Your task to perform on an android device: check google app version Image 0: 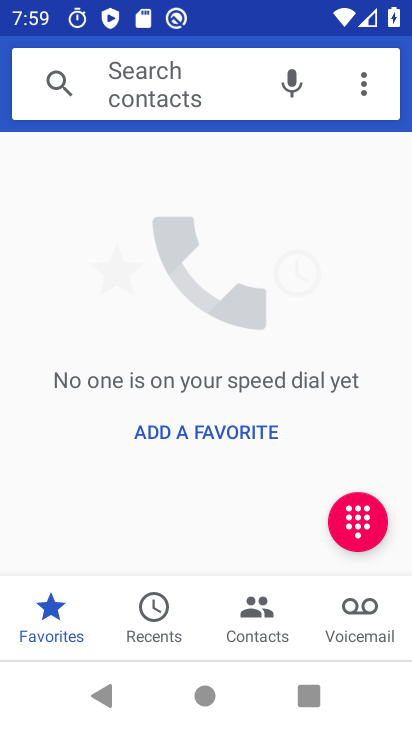
Step 0: press home button
Your task to perform on an android device: check google app version Image 1: 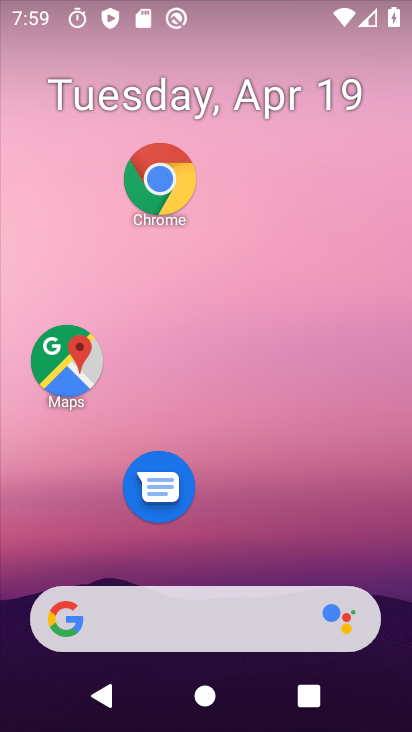
Step 1: click (191, 274)
Your task to perform on an android device: check google app version Image 2: 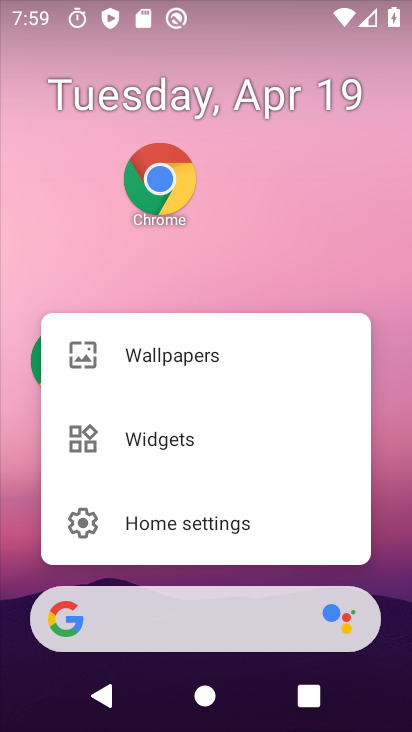
Step 2: click (220, 219)
Your task to perform on an android device: check google app version Image 3: 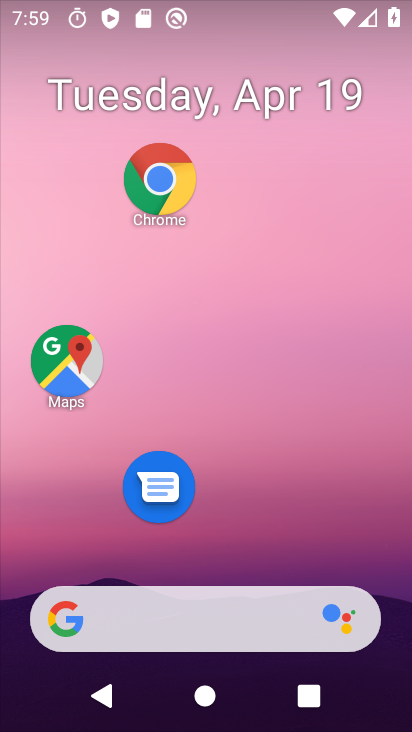
Step 3: drag from (239, 528) to (191, 273)
Your task to perform on an android device: check google app version Image 4: 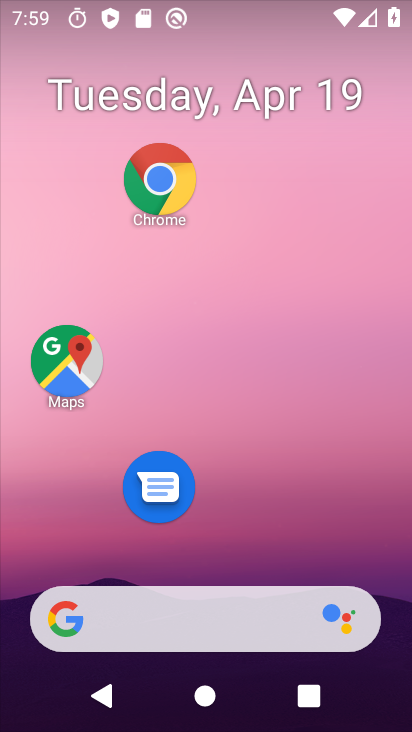
Step 4: drag from (260, 322) to (245, 273)
Your task to perform on an android device: check google app version Image 5: 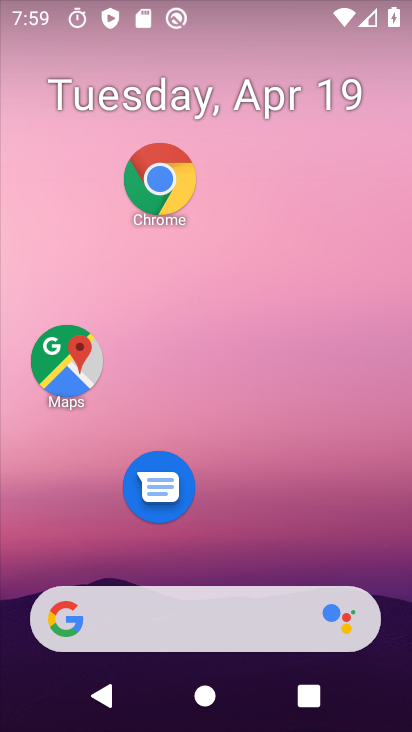
Step 5: drag from (228, 480) to (160, 256)
Your task to perform on an android device: check google app version Image 6: 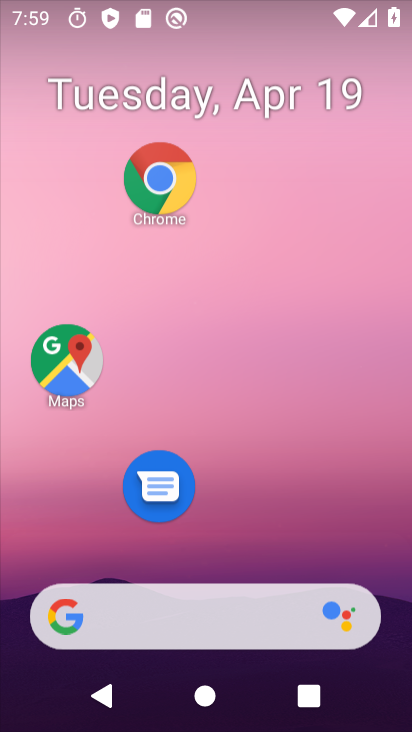
Step 6: click (169, 278)
Your task to perform on an android device: check google app version Image 7: 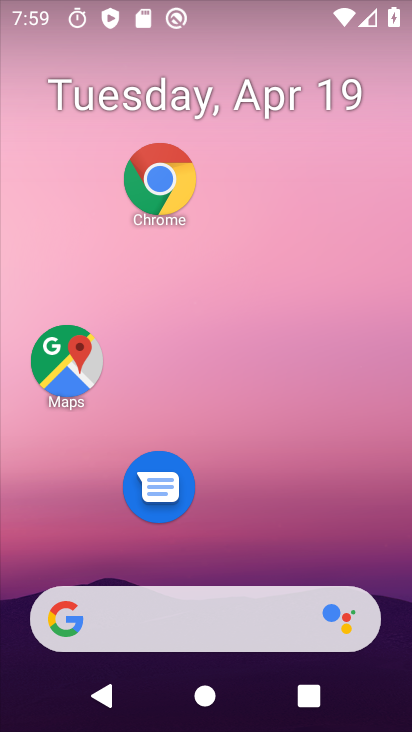
Step 7: drag from (214, 623) to (201, 264)
Your task to perform on an android device: check google app version Image 8: 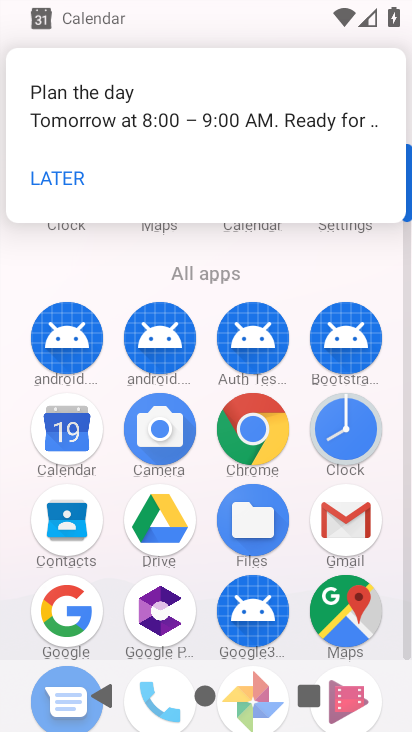
Step 8: click (67, 611)
Your task to perform on an android device: check google app version Image 9: 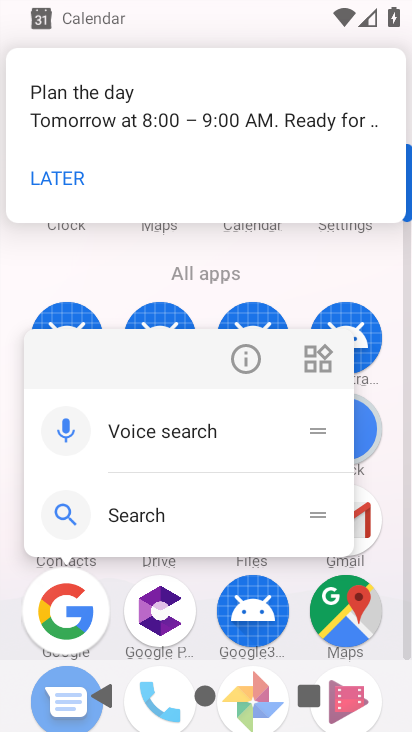
Step 9: click (67, 611)
Your task to perform on an android device: check google app version Image 10: 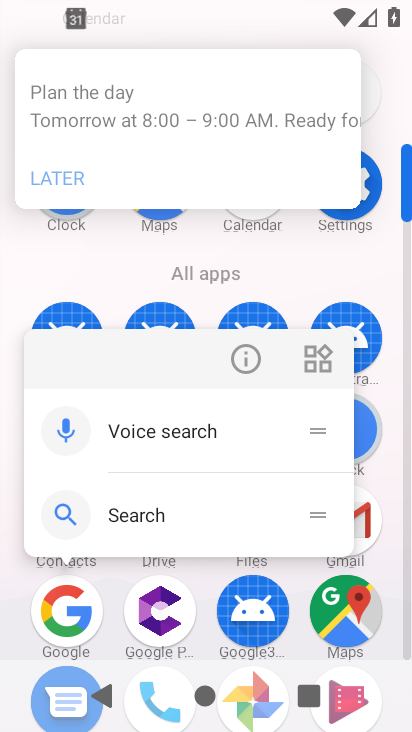
Step 10: click (46, 592)
Your task to perform on an android device: check google app version Image 11: 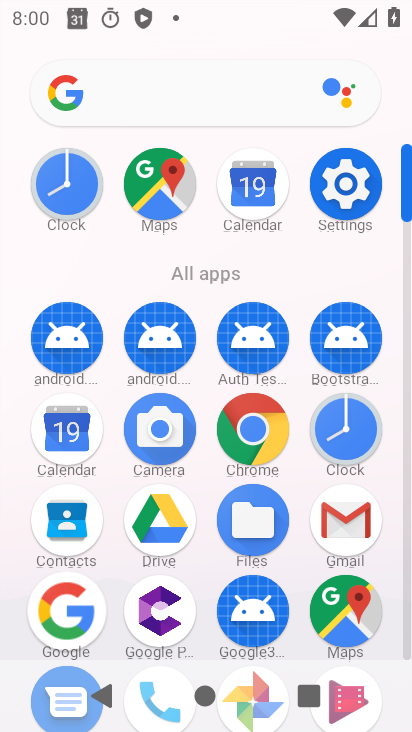
Step 11: click (42, 592)
Your task to perform on an android device: check google app version Image 12: 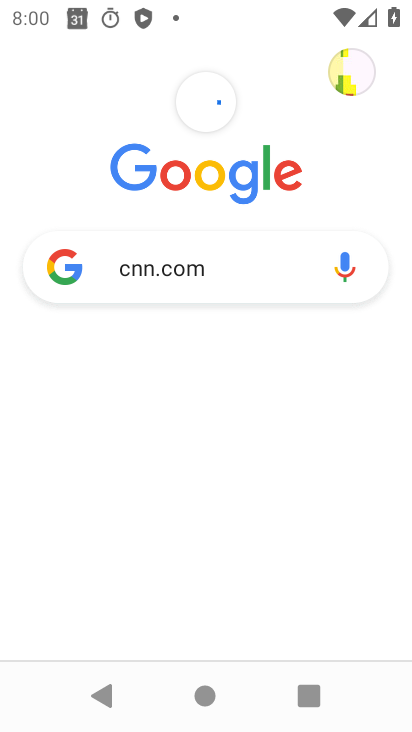
Step 12: click (40, 592)
Your task to perform on an android device: check google app version Image 13: 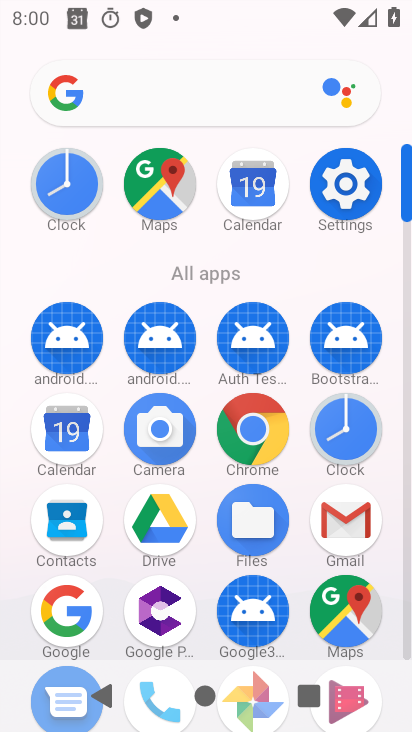
Step 13: press home button
Your task to perform on an android device: check google app version Image 14: 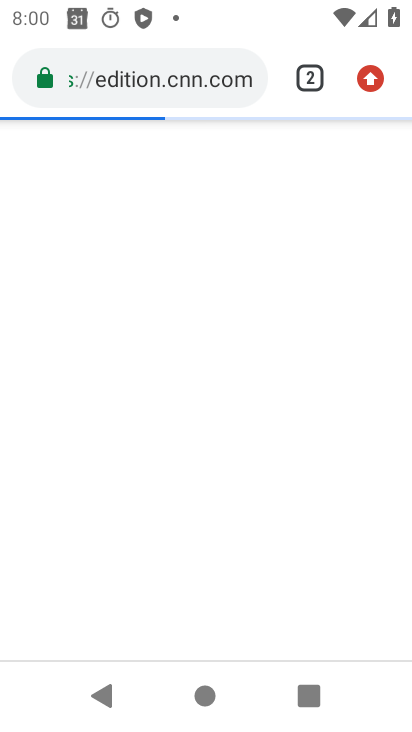
Step 14: press home button
Your task to perform on an android device: check google app version Image 15: 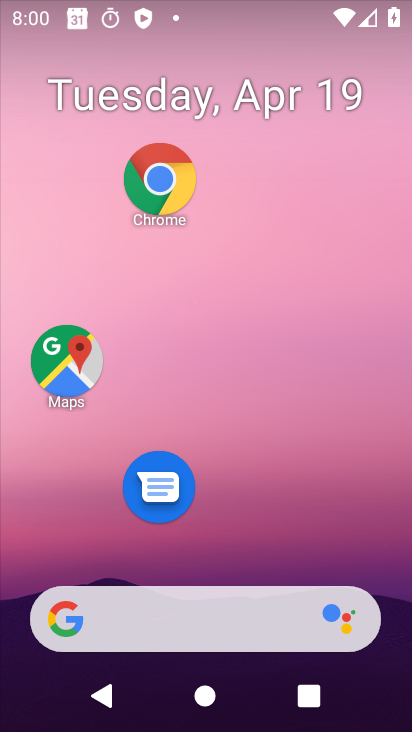
Step 15: drag from (267, 658) to (271, 185)
Your task to perform on an android device: check google app version Image 16: 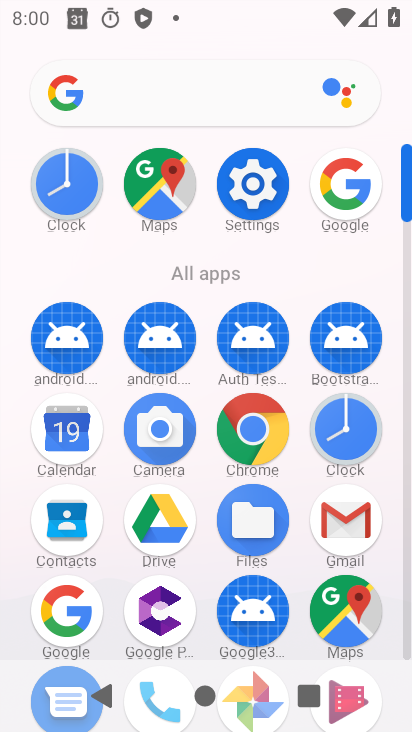
Step 16: click (71, 616)
Your task to perform on an android device: check google app version Image 17: 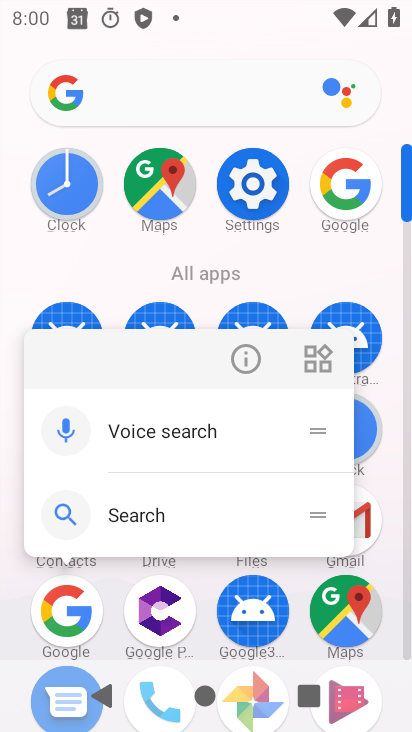
Step 17: click (49, 595)
Your task to perform on an android device: check google app version Image 18: 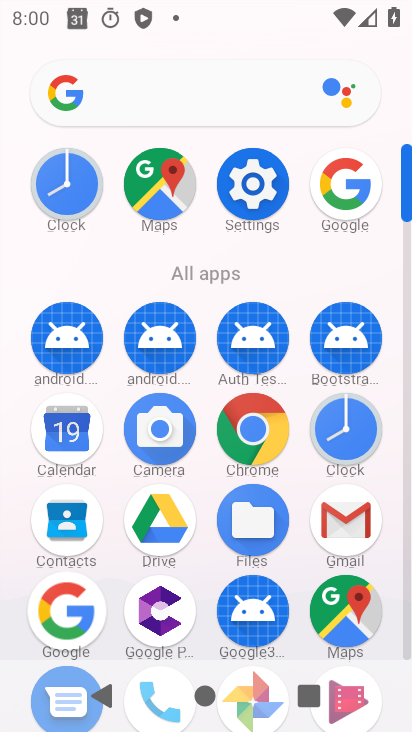
Step 18: click (48, 595)
Your task to perform on an android device: check google app version Image 19: 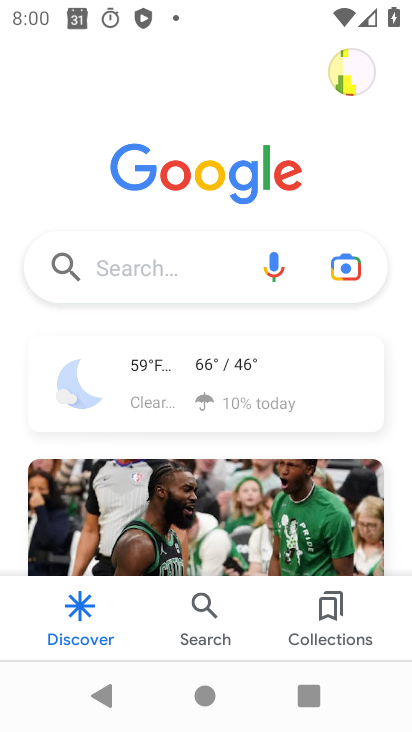
Step 19: press home button
Your task to perform on an android device: check google app version Image 20: 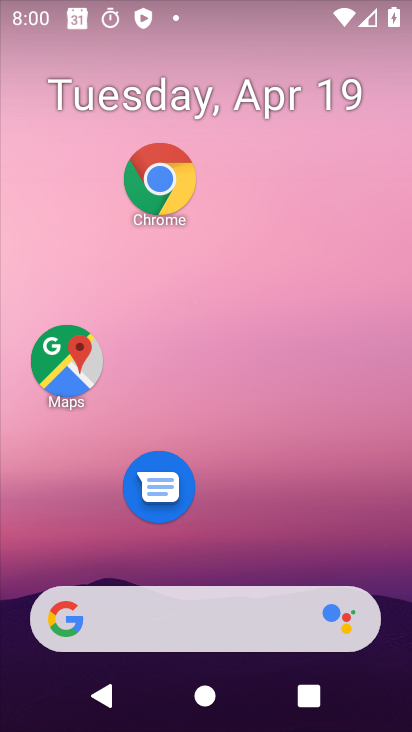
Step 20: drag from (252, 689) to (296, 171)
Your task to perform on an android device: check google app version Image 21: 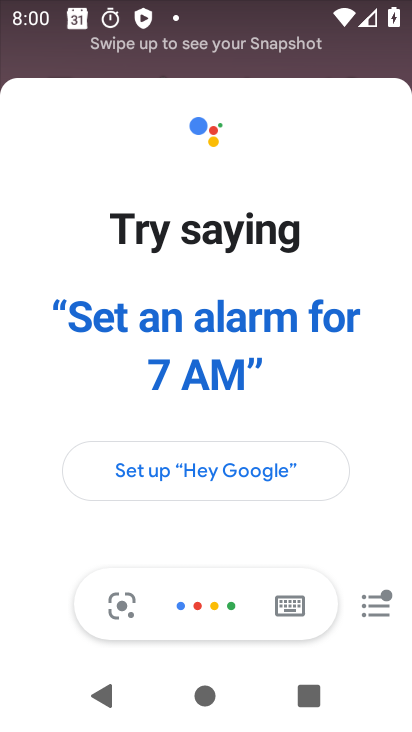
Step 21: click (330, 143)
Your task to perform on an android device: check google app version Image 22: 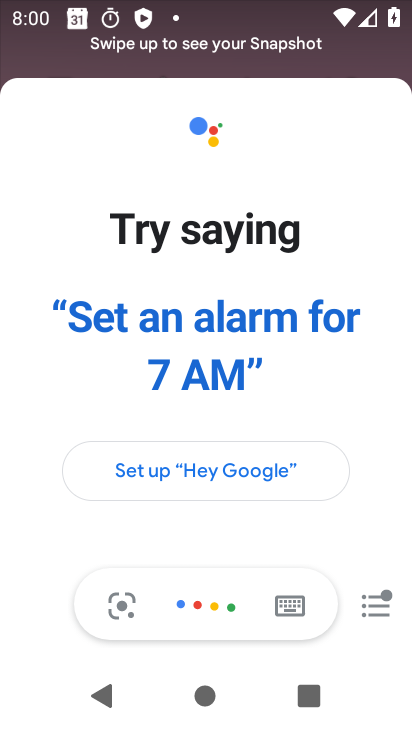
Step 22: click (315, 61)
Your task to perform on an android device: check google app version Image 23: 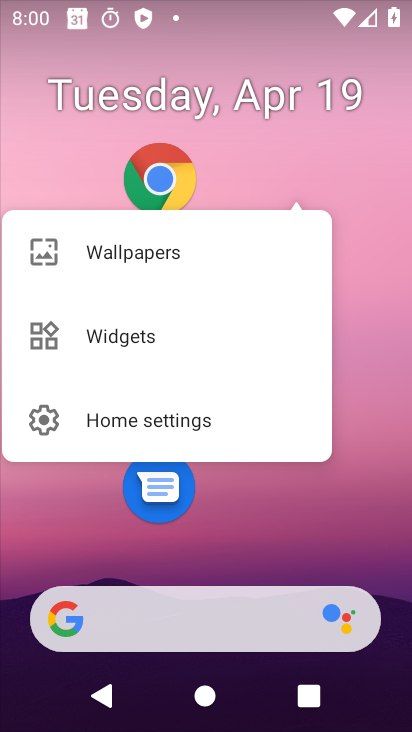
Step 23: press home button
Your task to perform on an android device: check google app version Image 24: 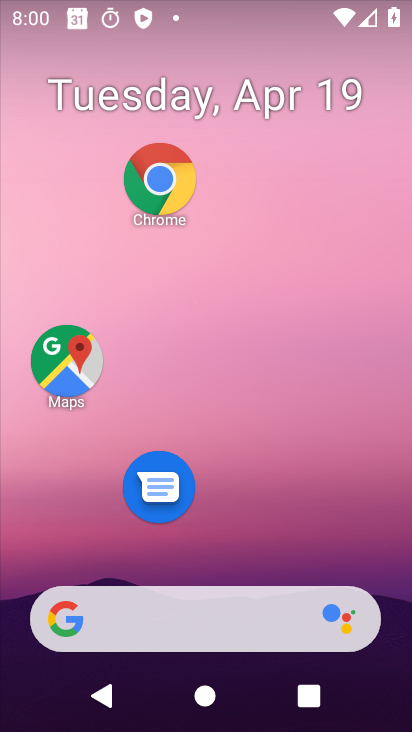
Step 24: press home button
Your task to perform on an android device: check google app version Image 25: 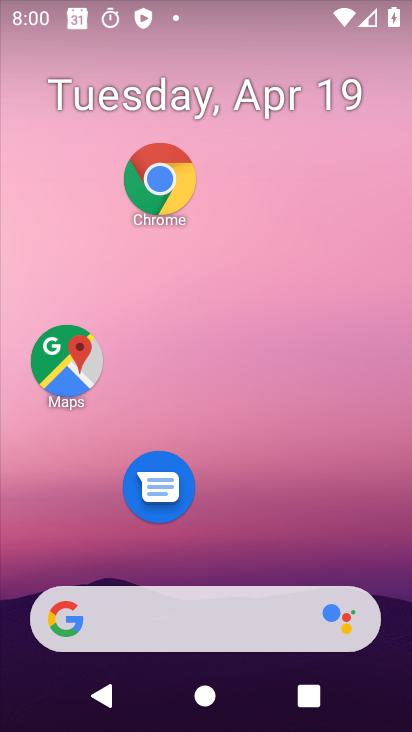
Step 25: press home button
Your task to perform on an android device: check google app version Image 26: 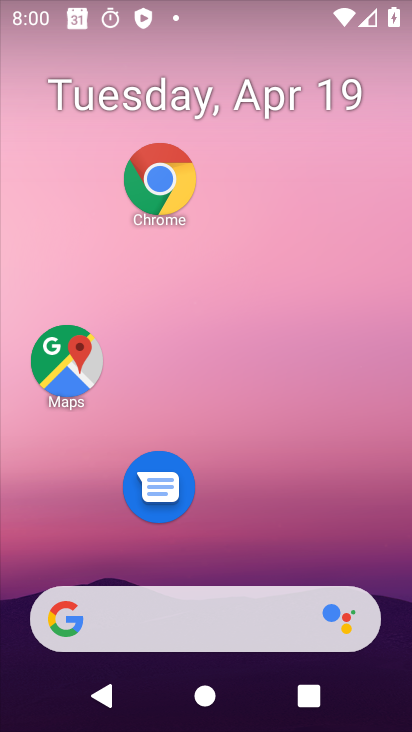
Step 26: drag from (283, 697) to (311, 258)
Your task to perform on an android device: check google app version Image 27: 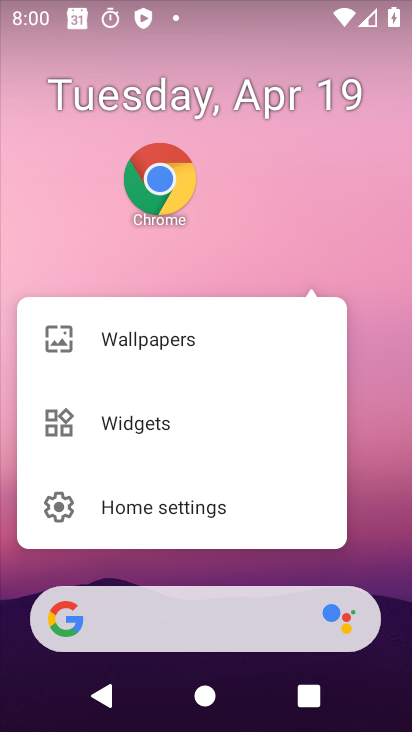
Step 27: click (260, 210)
Your task to perform on an android device: check google app version Image 28: 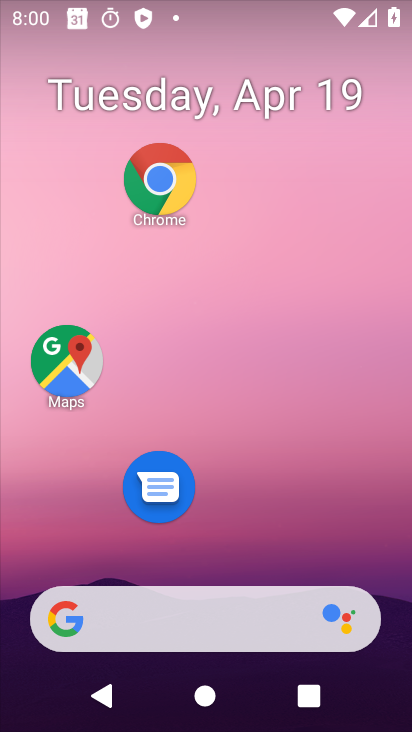
Step 28: drag from (277, 708) to (250, 293)
Your task to perform on an android device: check google app version Image 29: 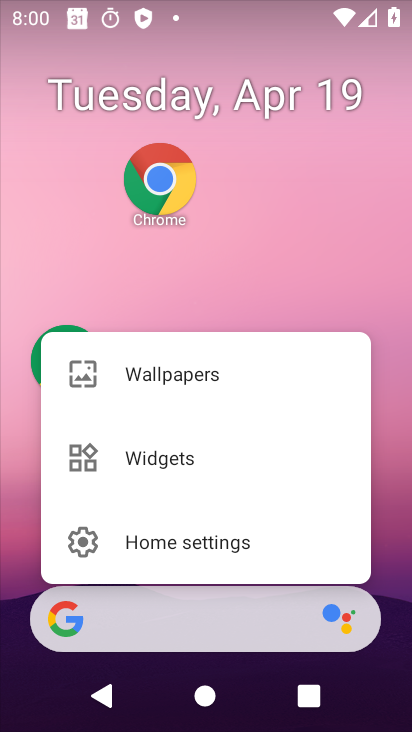
Step 29: click (277, 252)
Your task to perform on an android device: check google app version Image 30: 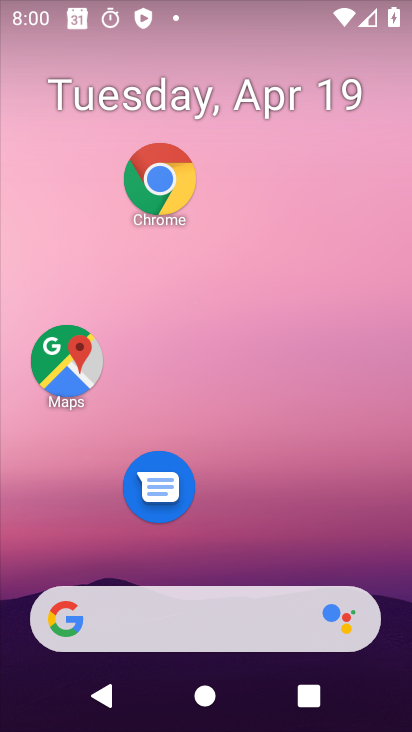
Step 30: drag from (286, 614) to (258, 159)
Your task to perform on an android device: check google app version Image 31: 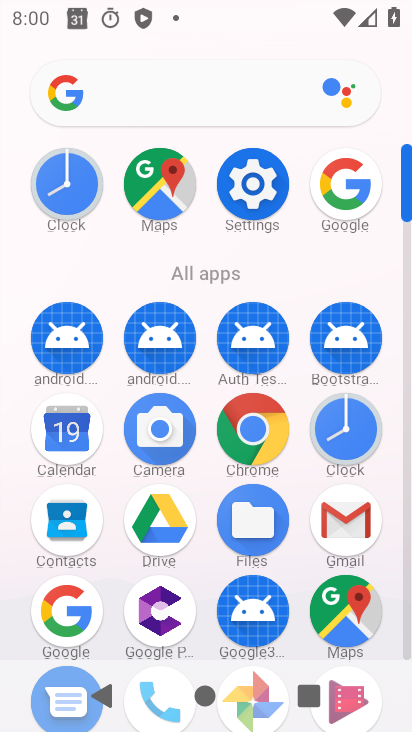
Step 31: click (61, 612)
Your task to perform on an android device: check google app version Image 32: 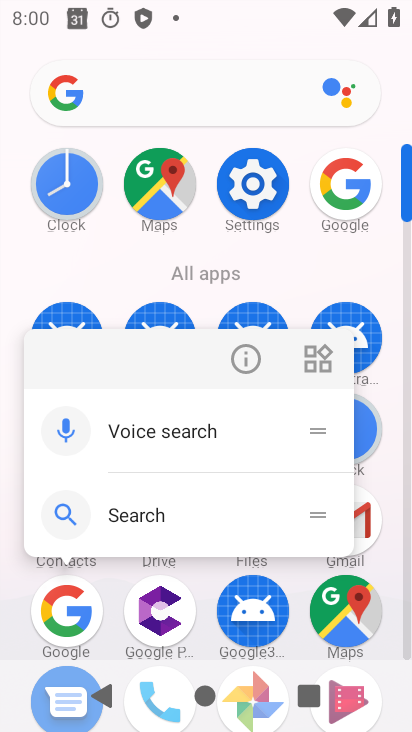
Step 32: click (61, 612)
Your task to perform on an android device: check google app version Image 33: 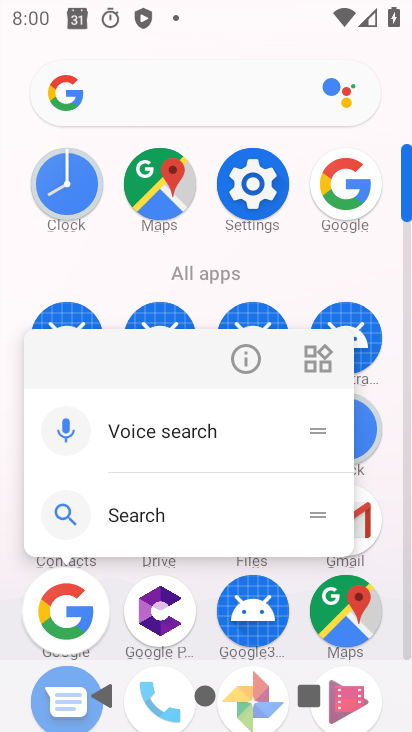
Step 33: click (61, 612)
Your task to perform on an android device: check google app version Image 34: 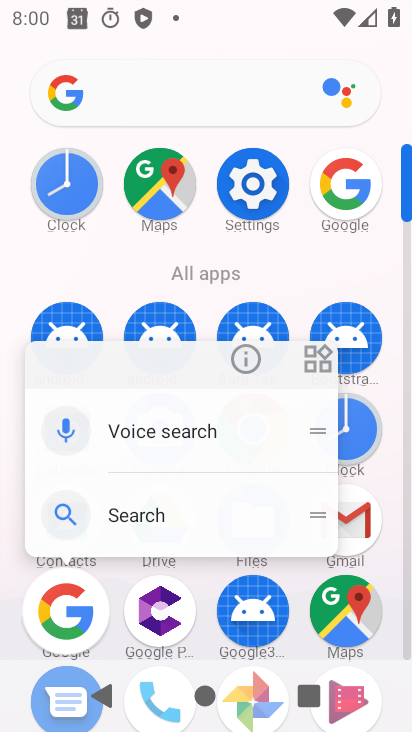
Step 34: click (61, 612)
Your task to perform on an android device: check google app version Image 35: 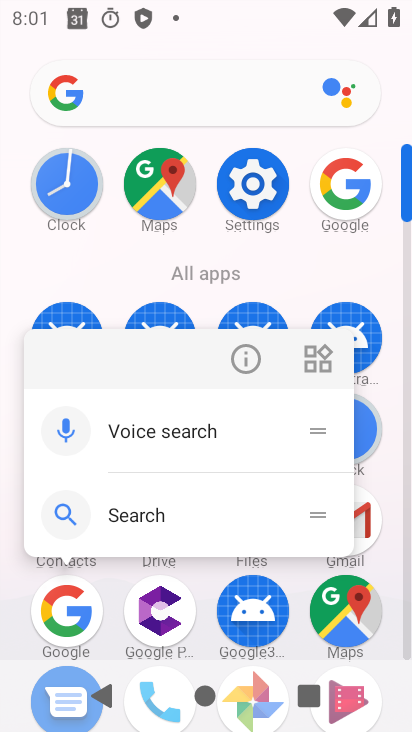
Step 35: click (60, 609)
Your task to perform on an android device: check google app version Image 36: 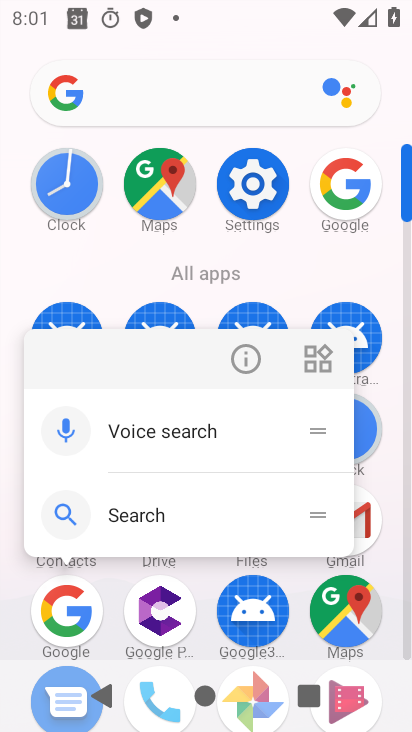
Step 36: click (59, 608)
Your task to perform on an android device: check google app version Image 37: 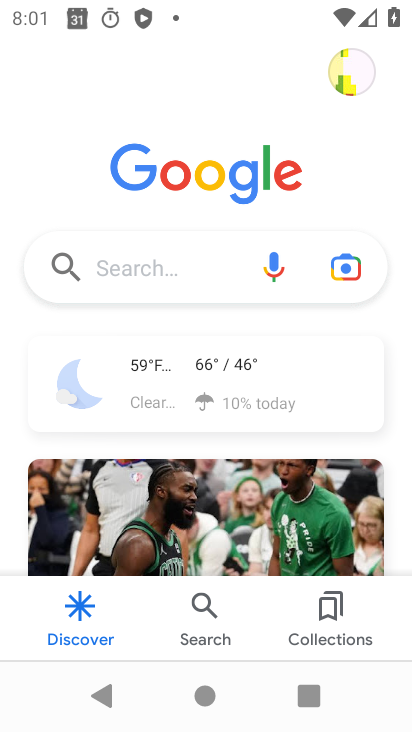
Step 37: drag from (366, 78) to (348, 727)
Your task to perform on an android device: check google app version Image 38: 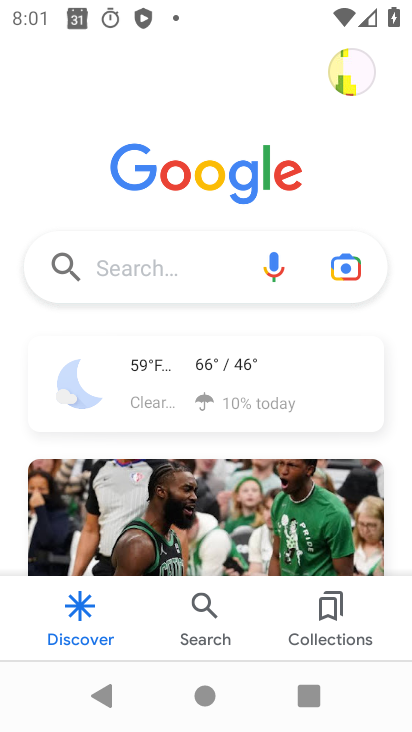
Step 38: drag from (351, 74) to (350, 451)
Your task to perform on an android device: check google app version Image 39: 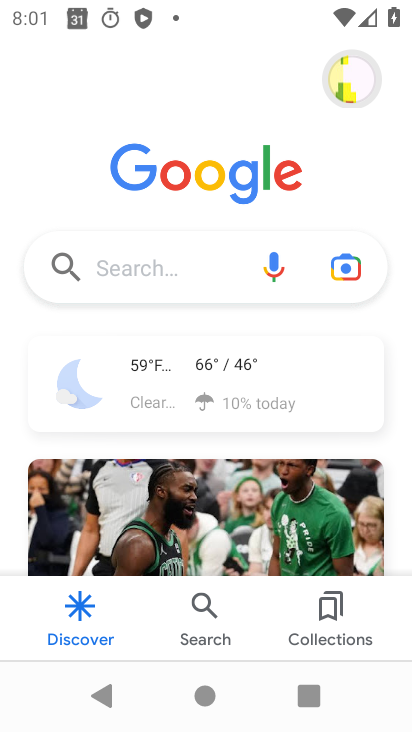
Step 39: drag from (308, 133) to (280, 391)
Your task to perform on an android device: check google app version Image 40: 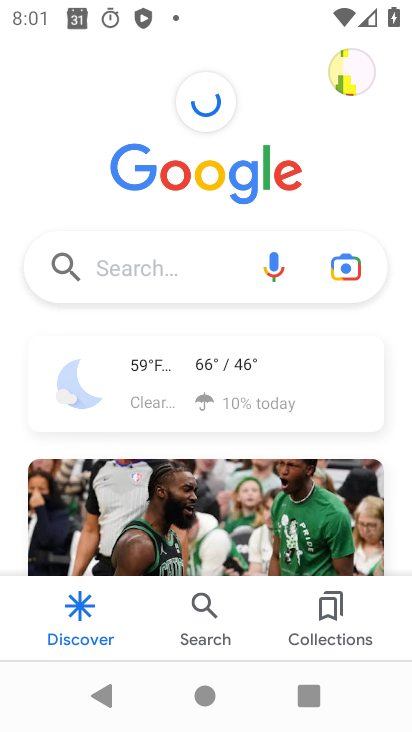
Step 40: click (350, 75)
Your task to perform on an android device: check google app version Image 41: 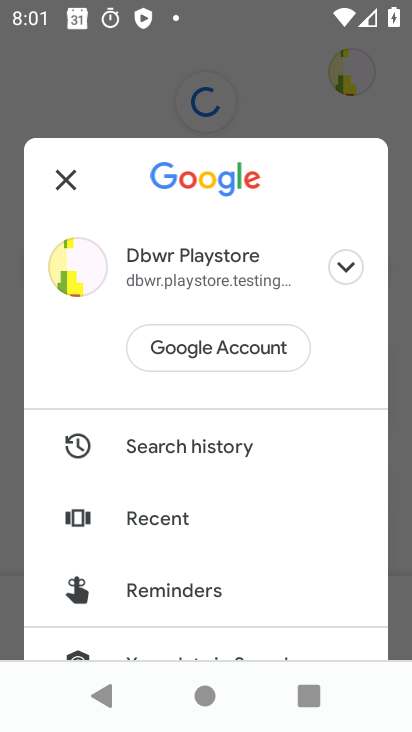
Step 41: drag from (212, 554) to (188, 224)
Your task to perform on an android device: check google app version Image 42: 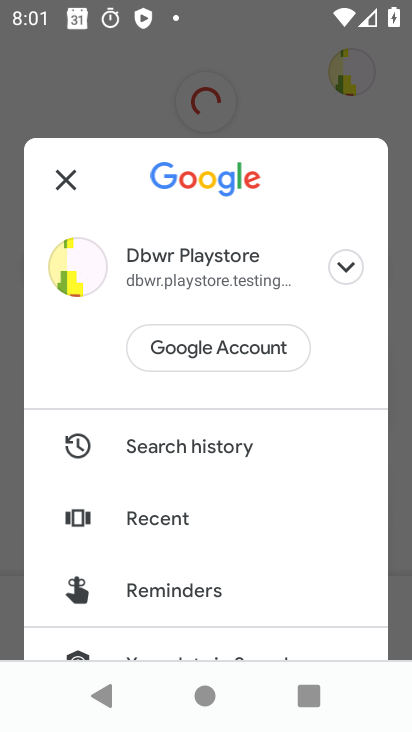
Step 42: drag from (212, 459) to (179, 197)
Your task to perform on an android device: check google app version Image 43: 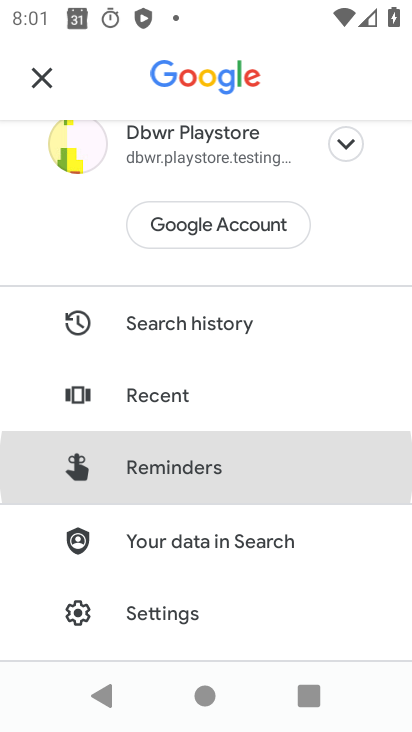
Step 43: drag from (183, 594) to (181, 360)
Your task to perform on an android device: check google app version Image 44: 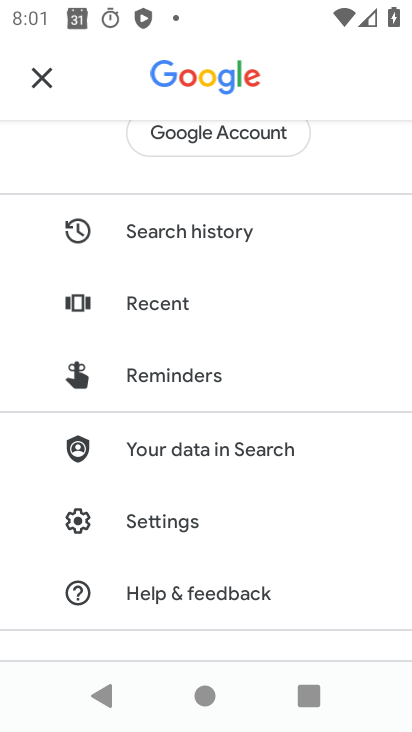
Step 44: click (153, 518)
Your task to perform on an android device: check google app version Image 45: 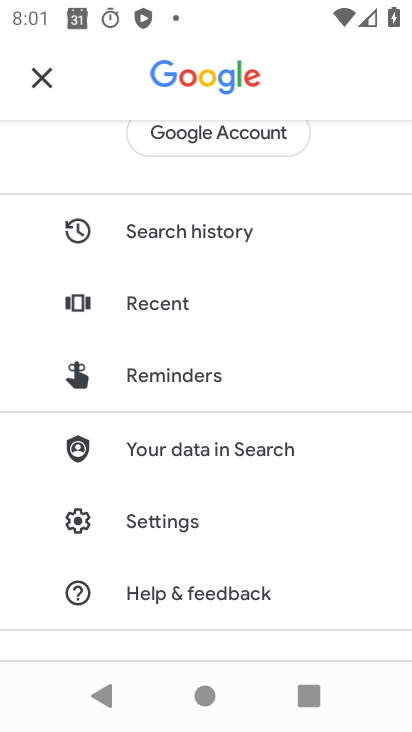
Step 45: click (153, 515)
Your task to perform on an android device: check google app version Image 46: 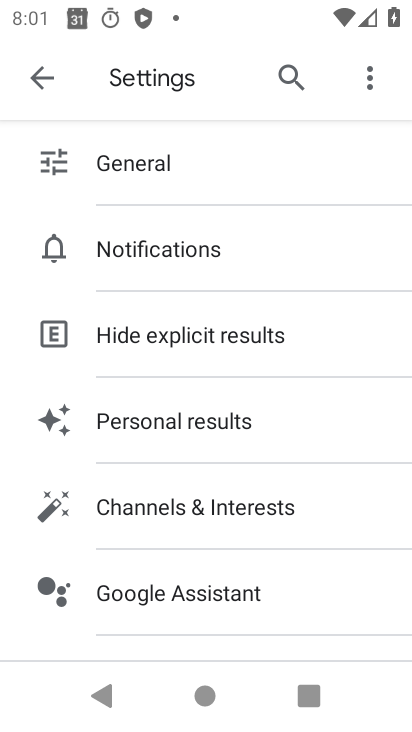
Step 46: drag from (156, 539) to (172, 212)
Your task to perform on an android device: check google app version Image 47: 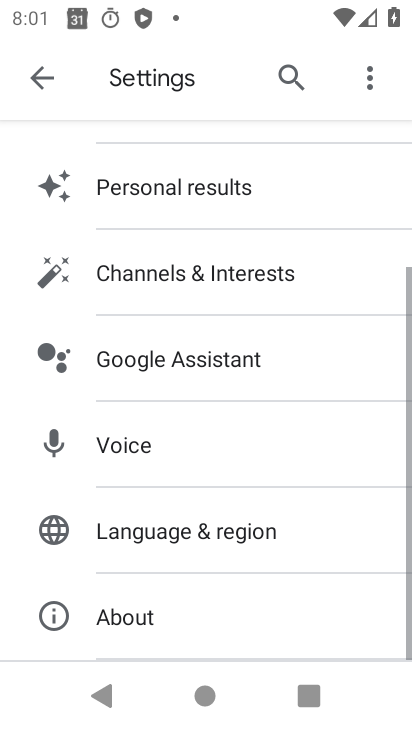
Step 47: drag from (172, 511) to (182, 170)
Your task to perform on an android device: check google app version Image 48: 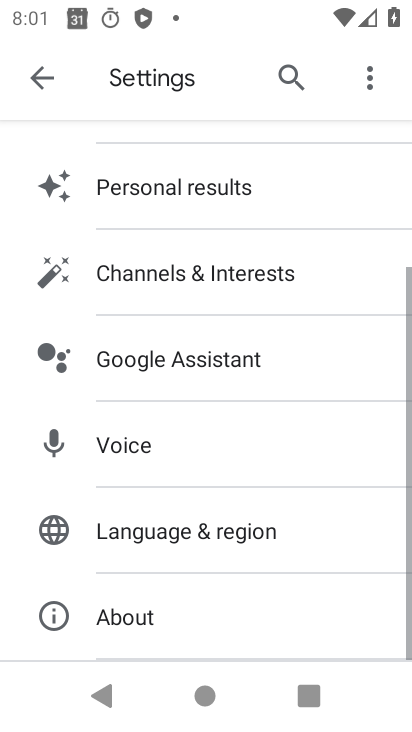
Step 48: click (134, 612)
Your task to perform on an android device: check google app version Image 49: 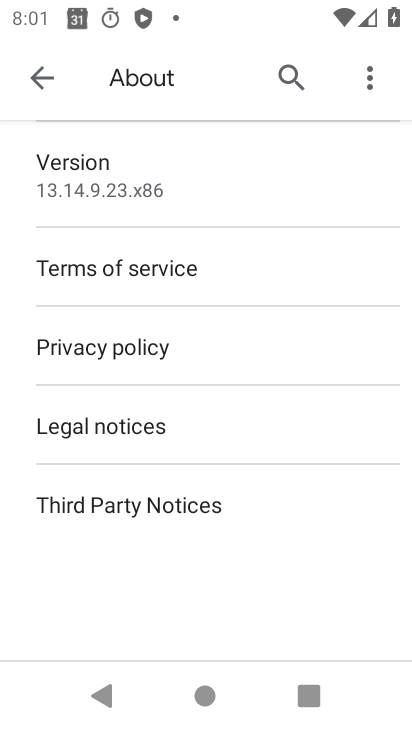
Step 49: click (108, 167)
Your task to perform on an android device: check google app version Image 50: 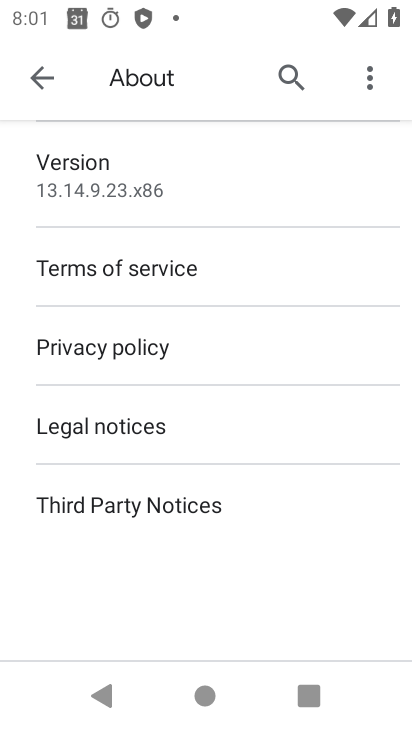
Step 50: task complete